Your task to perform on an android device: Open Youtube and go to "Your channel" Image 0: 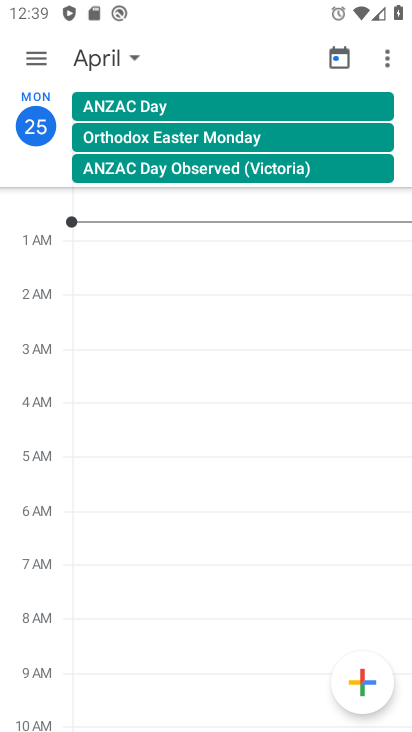
Step 0: press home button
Your task to perform on an android device: Open Youtube and go to "Your channel" Image 1: 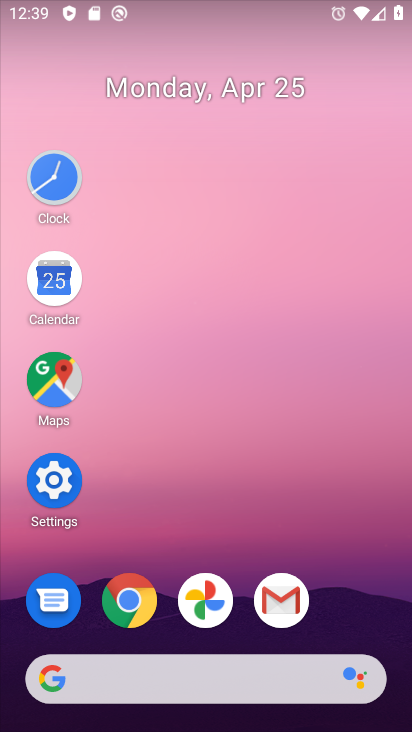
Step 1: drag from (375, 617) to (309, 95)
Your task to perform on an android device: Open Youtube and go to "Your channel" Image 2: 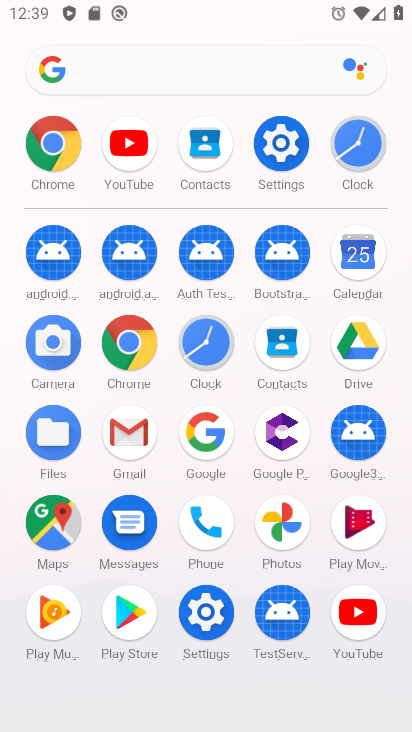
Step 2: click (348, 612)
Your task to perform on an android device: Open Youtube and go to "Your channel" Image 3: 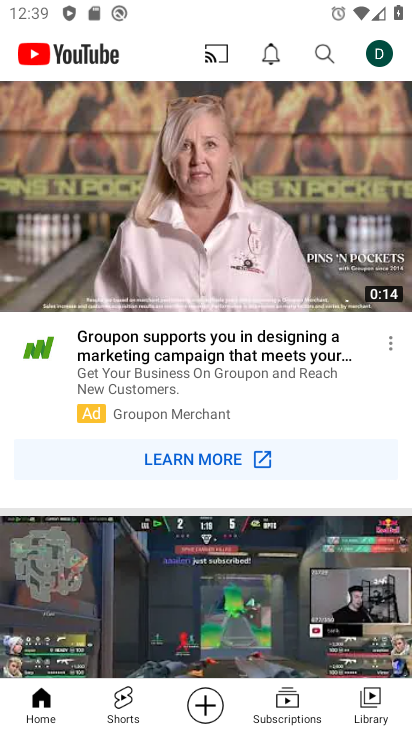
Step 3: click (377, 42)
Your task to perform on an android device: Open Youtube and go to "Your channel" Image 4: 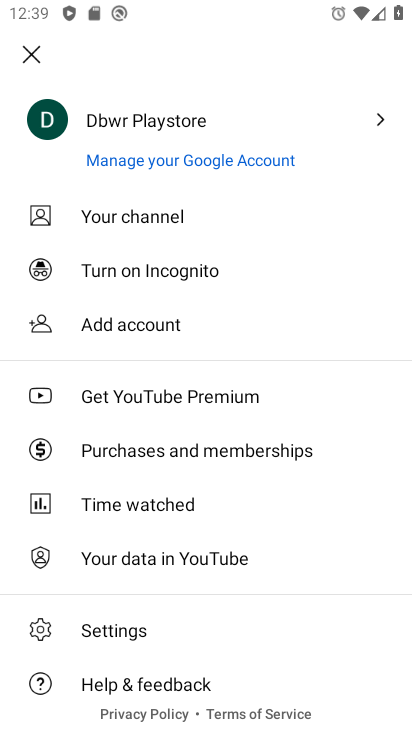
Step 4: click (133, 219)
Your task to perform on an android device: Open Youtube and go to "Your channel" Image 5: 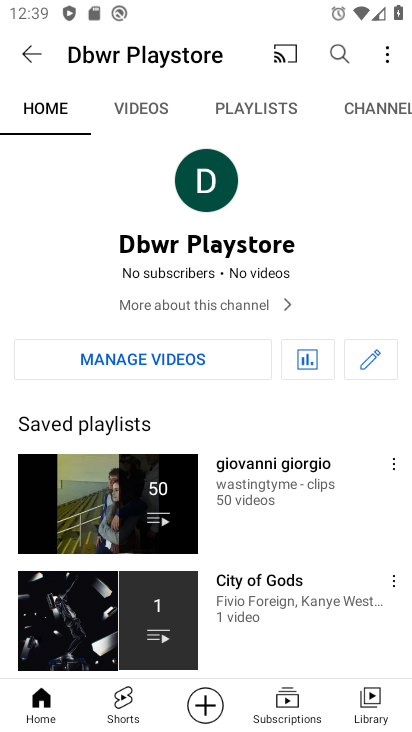
Step 5: task complete